Your task to perform on an android device: Open internet settings Image 0: 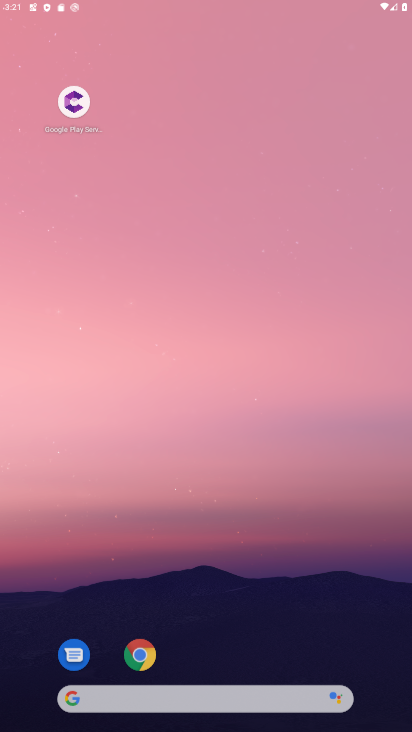
Step 0: drag from (27, 589) to (148, 133)
Your task to perform on an android device: Open internet settings Image 1: 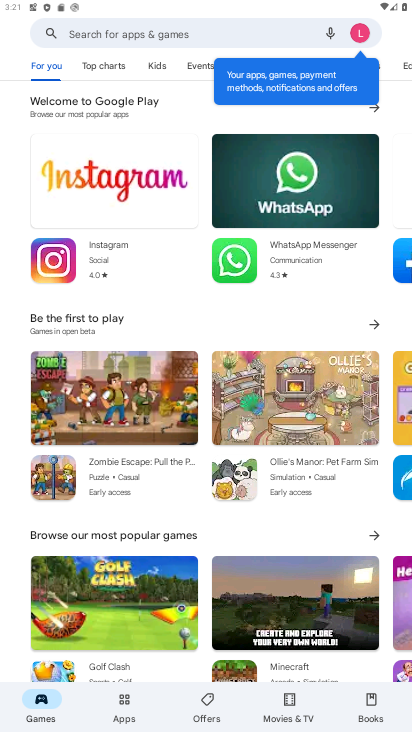
Step 1: press home button
Your task to perform on an android device: Open internet settings Image 2: 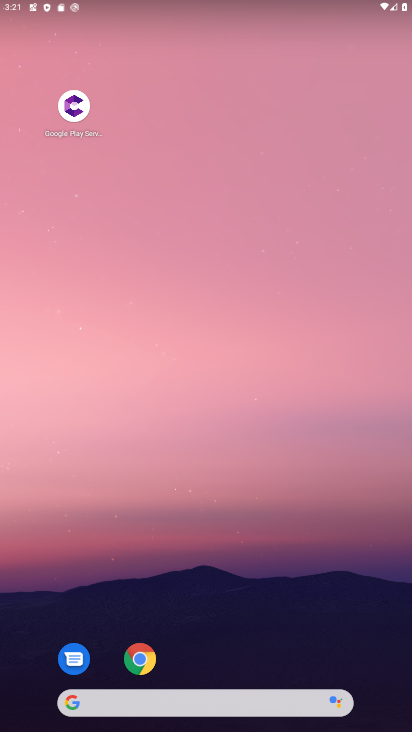
Step 2: drag from (32, 683) to (68, 154)
Your task to perform on an android device: Open internet settings Image 3: 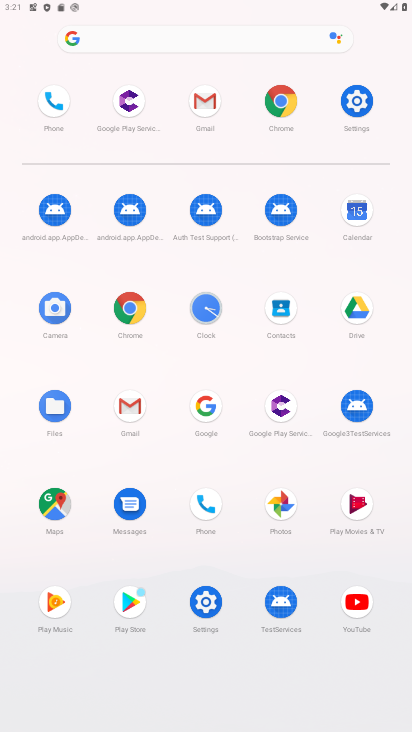
Step 3: click (205, 610)
Your task to perform on an android device: Open internet settings Image 4: 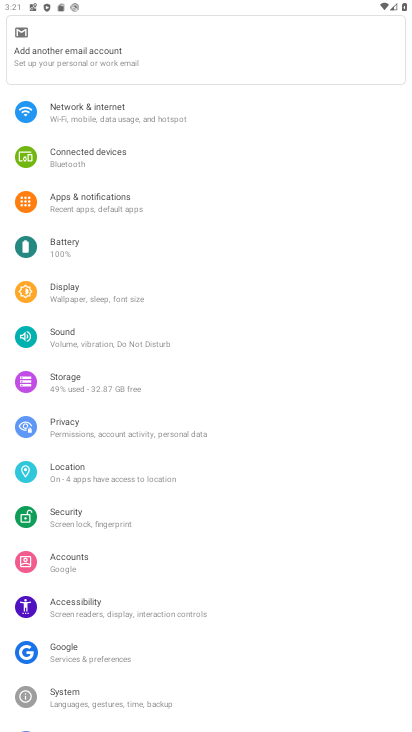
Step 4: click (142, 112)
Your task to perform on an android device: Open internet settings Image 5: 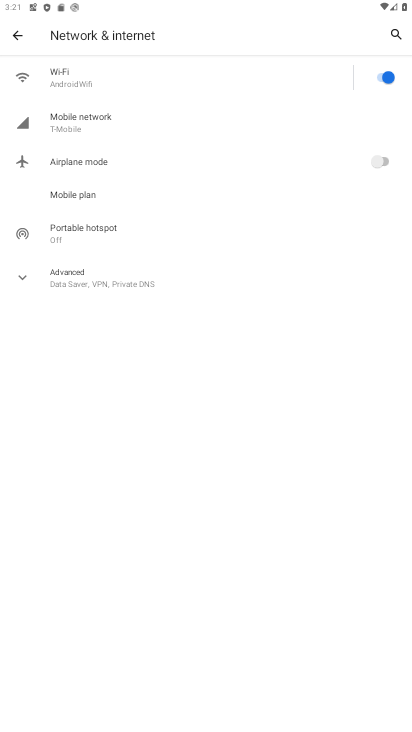
Step 5: task complete